Your task to perform on an android device: Check the news Image 0: 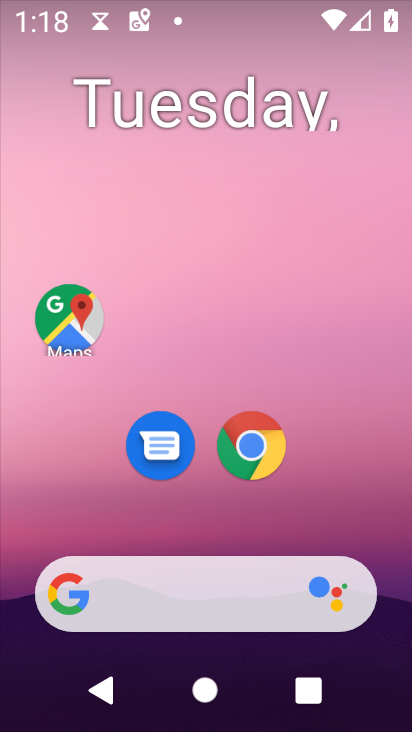
Step 0: drag from (313, 552) to (404, 437)
Your task to perform on an android device: Check the news Image 1: 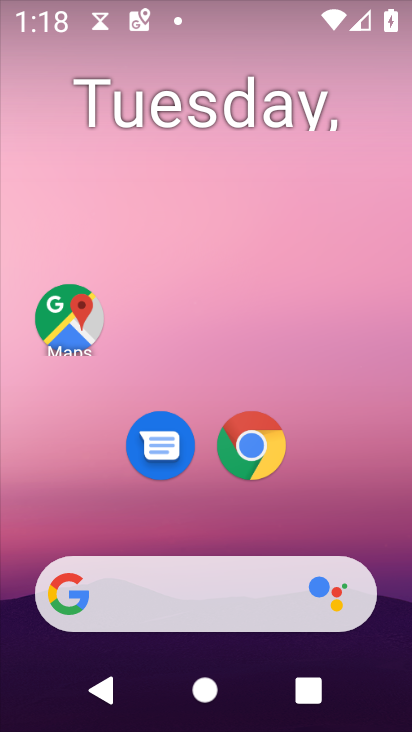
Step 1: click (242, 387)
Your task to perform on an android device: Check the news Image 2: 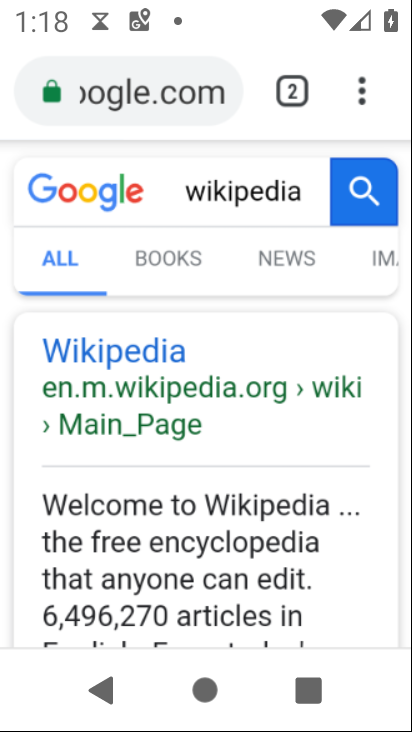
Step 2: drag from (279, 583) to (314, 38)
Your task to perform on an android device: Check the news Image 3: 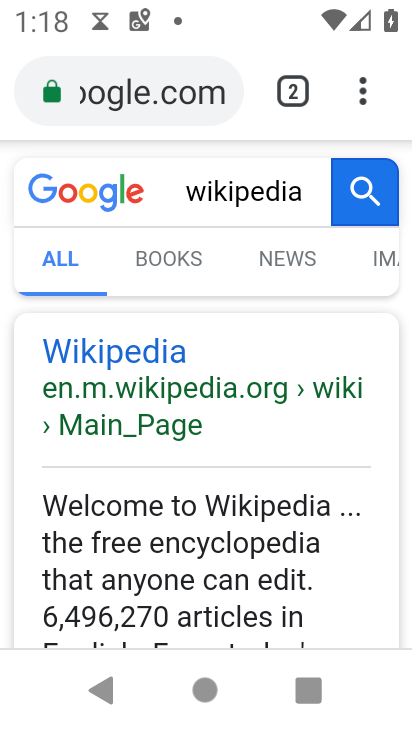
Step 3: click (194, 82)
Your task to perform on an android device: Check the news Image 4: 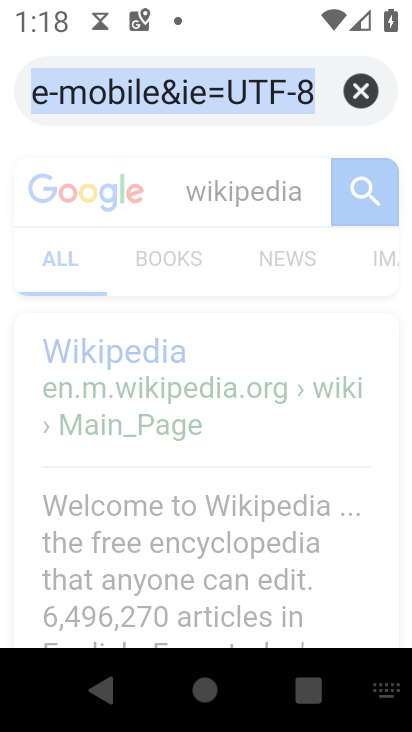
Step 4: click (363, 95)
Your task to perform on an android device: Check the news Image 5: 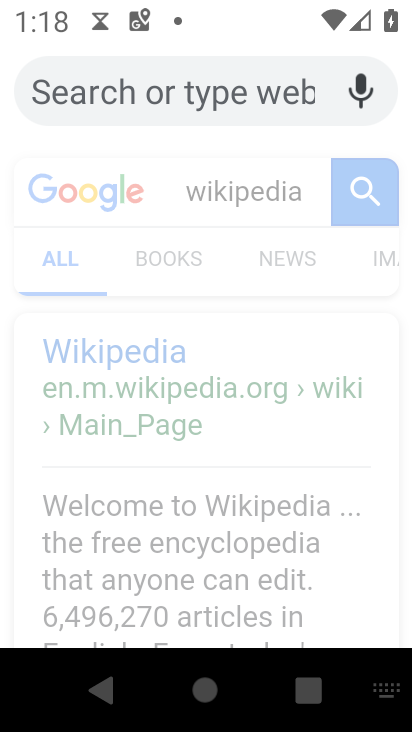
Step 5: type "check the news"
Your task to perform on an android device: Check the news Image 6: 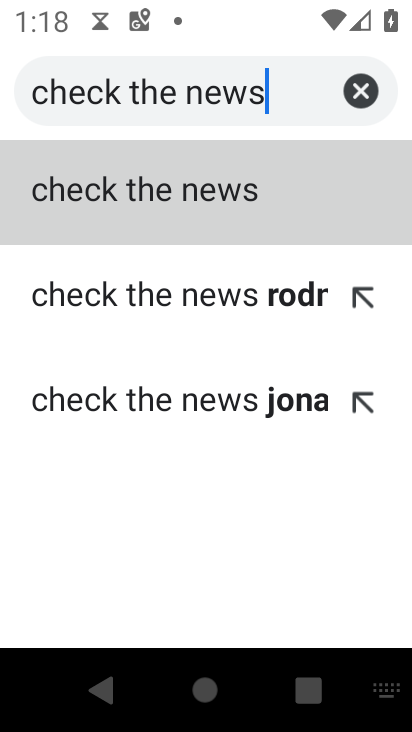
Step 6: click (217, 203)
Your task to perform on an android device: Check the news Image 7: 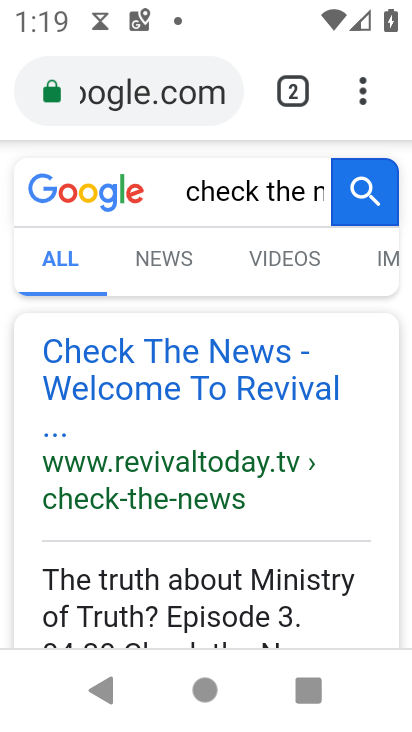
Step 7: task complete